Your task to perform on an android device: turn on data saver in the chrome app Image 0: 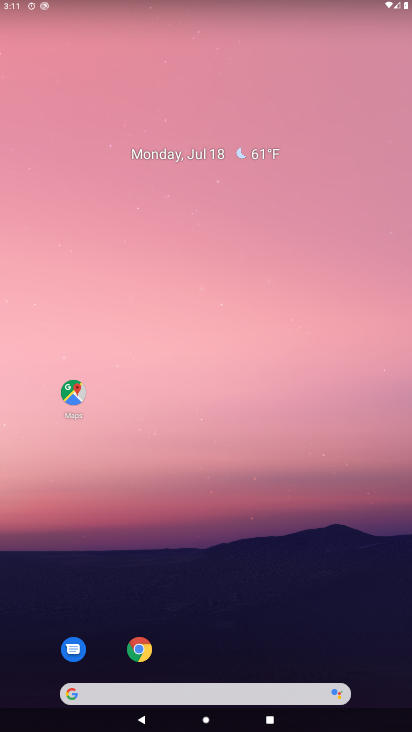
Step 0: click (142, 642)
Your task to perform on an android device: turn on data saver in the chrome app Image 1: 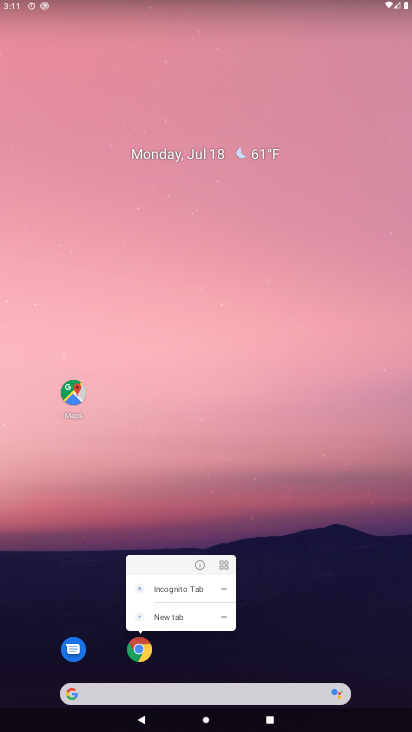
Step 1: click (149, 641)
Your task to perform on an android device: turn on data saver in the chrome app Image 2: 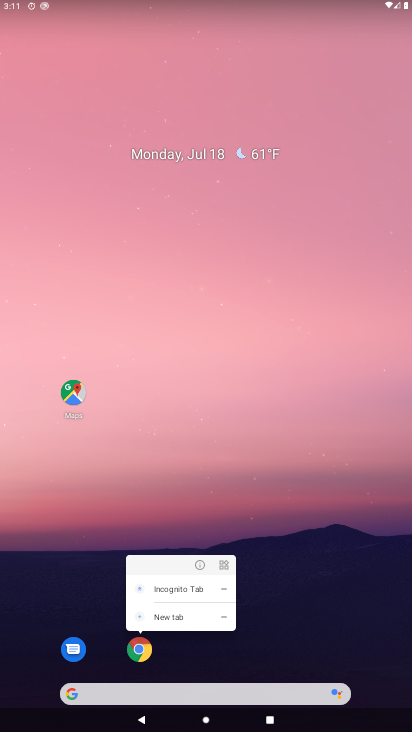
Step 2: click (109, 662)
Your task to perform on an android device: turn on data saver in the chrome app Image 3: 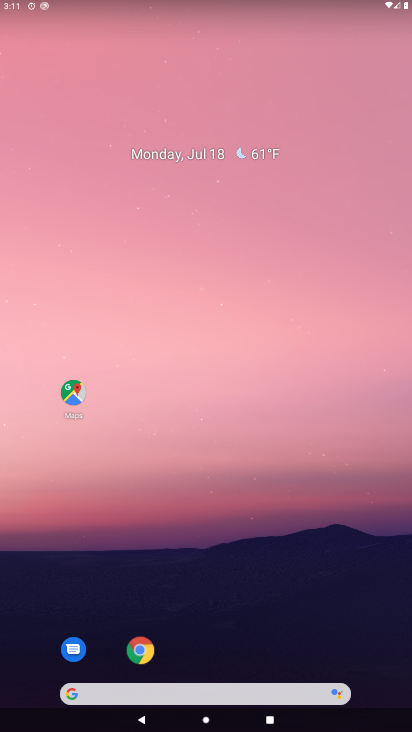
Step 3: click (129, 655)
Your task to perform on an android device: turn on data saver in the chrome app Image 4: 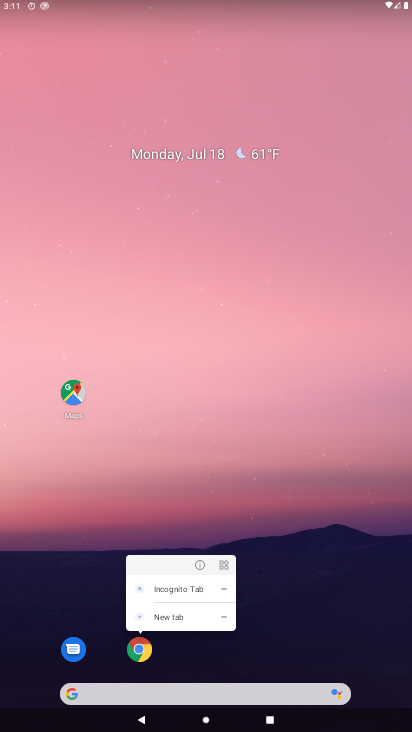
Step 4: task complete